Your task to perform on an android device: read, delete, or share a saved page in the chrome app Image 0: 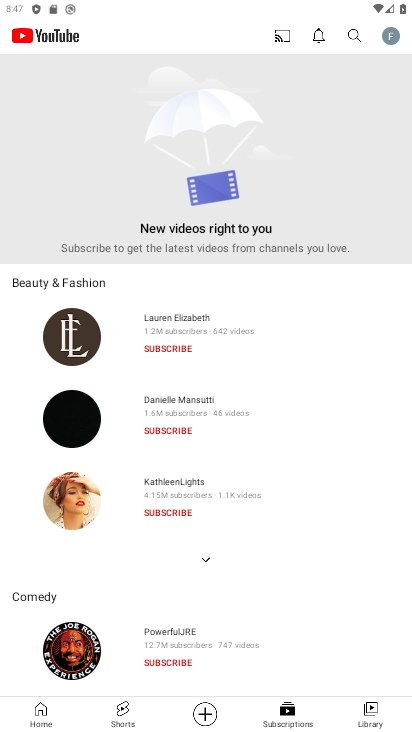
Step 0: drag from (269, 645) to (326, 211)
Your task to perform on an android device: read, delete, or share a saved page in the chrome app Image 1: 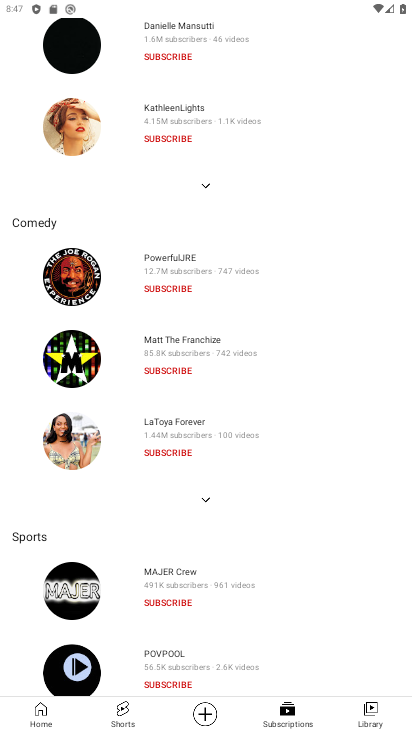
Step 1: drag from (297, 226) to (268, 710)
Your task to perform on an android device: read, delete, or share a saved page in the chrome app Image 2: 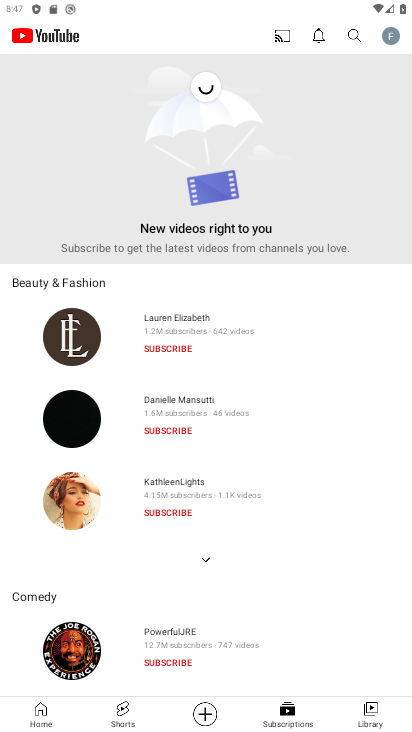
Step 2: drag from (219, 231) to (197, 505)
Your task to perform on an android device: read, delete, or share a saved page in the chrome app Image 3: 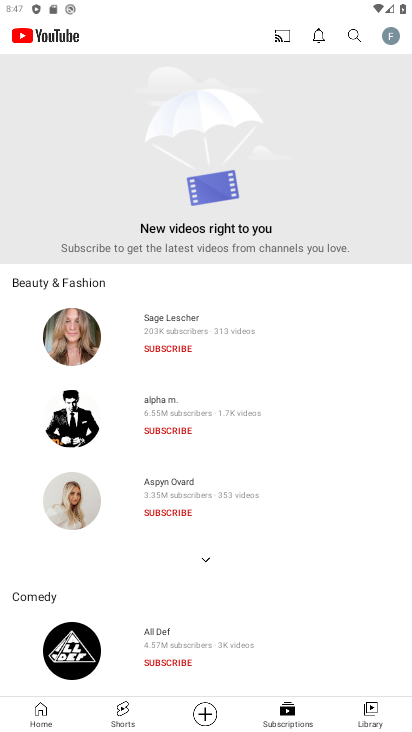
Step 3: drag from (252, 373) to (263, 704)
Your task to perform on an android device: read, delete, or share a saved page in the chrome app Image 4: 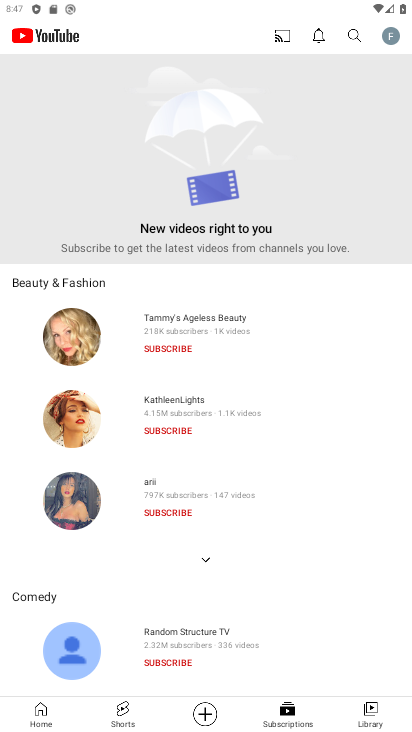
Step 4: drag from (185, 647) to (246, 336)
Your task to perform on an android device: read, delete, or share a saved page in the chrome app Image 5: 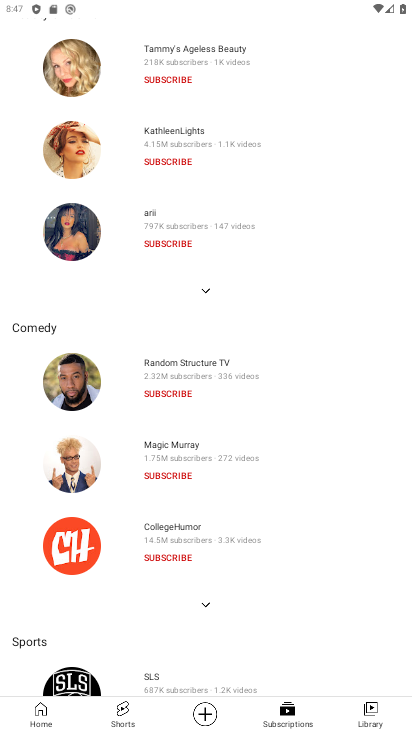
Step 5: press home button
Your task to perform on an android device: read, delete, or share a saved page in the chrome app Image 6: 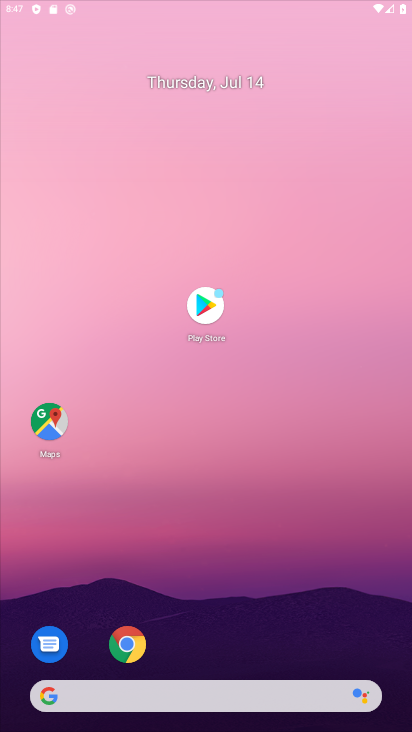
Step 6: drag from (235, 618) to (316, 208)
Your task to perform on an android device: read, delete, or share a saved page in the chrome app Image 7: 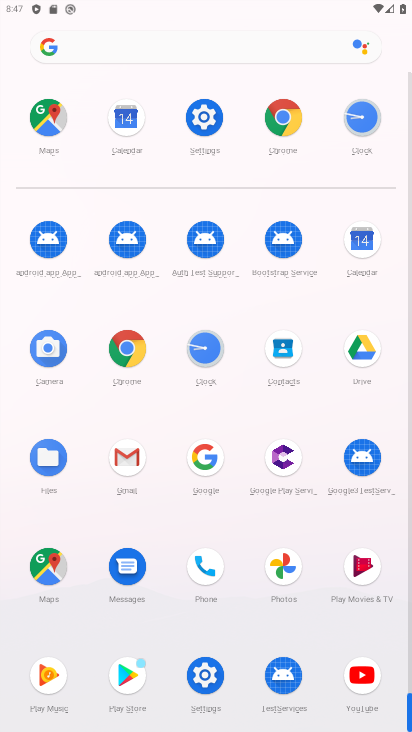
Step 7: click (124, 347)
Your task to perform on an android device: read, delete, or share a saved page in the chrome app Image 8: 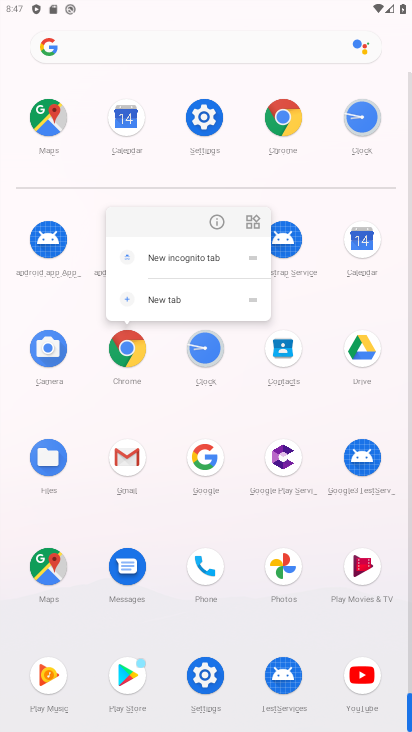
Step 8: click (212, 228)
Your task to perform on an android device: read, delete, or share a saved page in the chrome app Image 9: 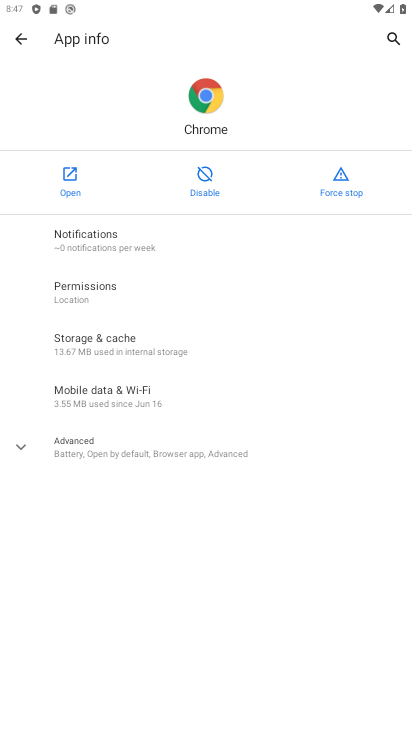
Step 9: click (67, 176)
Your task to perform on an android device: read, delete, or share a saved page in the chrome app Image 10: 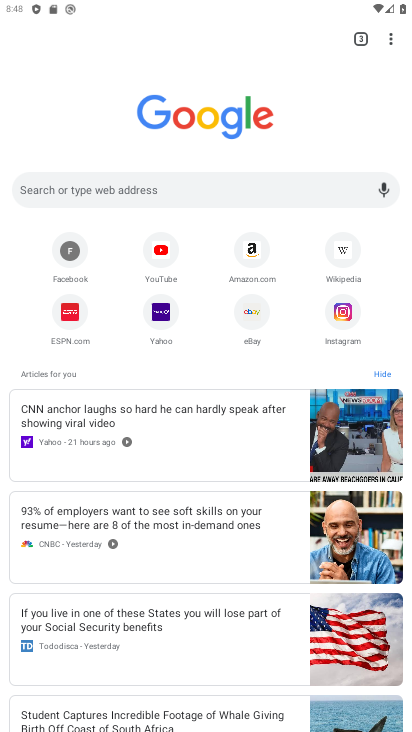
Step 10: drag from (157, 629) to (241, 415)
Your task to perform on an android device: read, delete, or share a saved page in the chrome app Image 11: 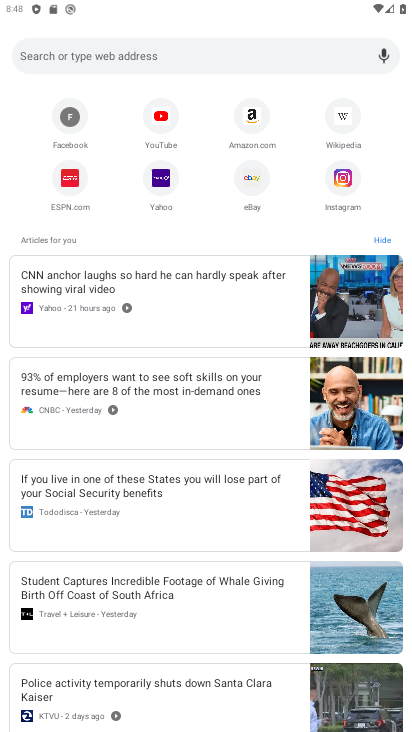
Step 11: drag from (220, 166) to (219, 636)
Your task to perform on an android device: read, delete, or share a saved page in the chrome app Image 12: 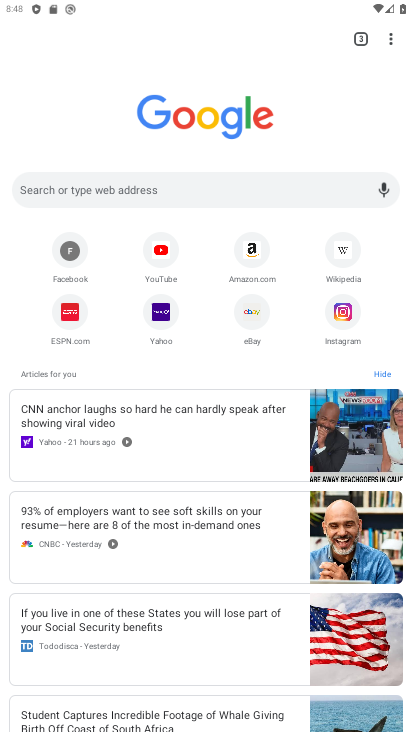
Step 12: click (392, 30)
Your task to perform on an android device: read, delete, or share a saved page in the chrome app Image 13: 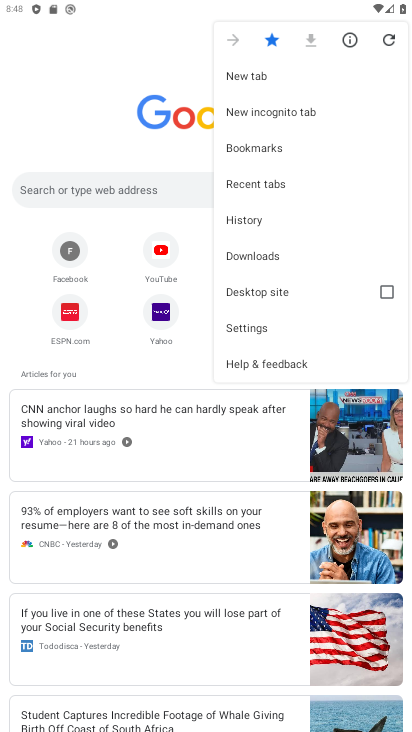
Step 13: click (282, 146)
Your task to perform on an android device: read, delete, or share a saved page in the chrome app Image 14: 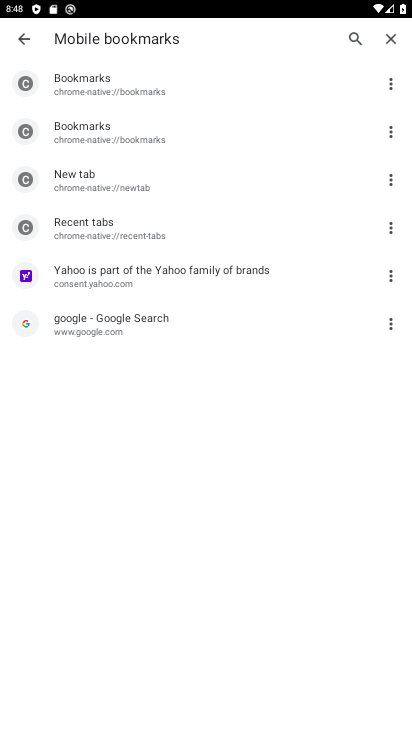
Step 14: click (113, 262)
Your task to perform on an android device: read, delete, or share a saved page in the chrome app Image 15: 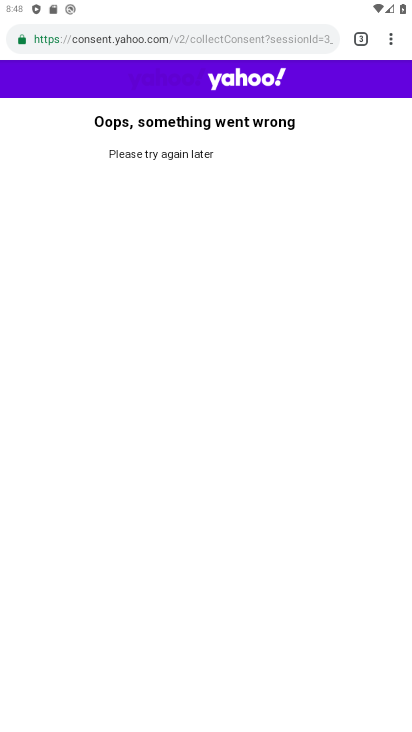
Step 15: task complete